Your task to perform on an android device: open app "Google Chat" Image 0: 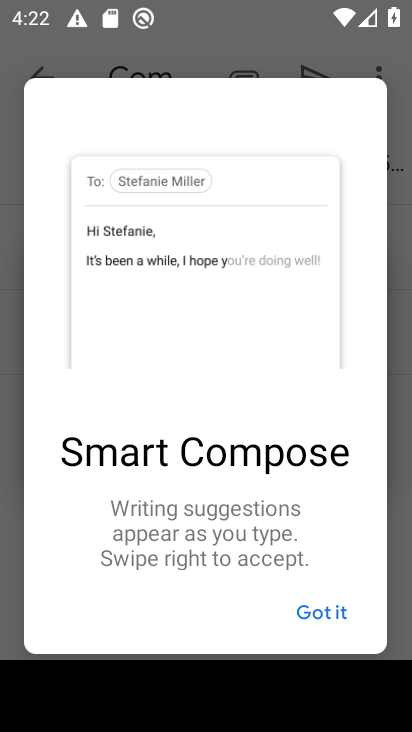
Step 0: press home button
Your task to perform on an android device: open app "Google Chat" Image 1: 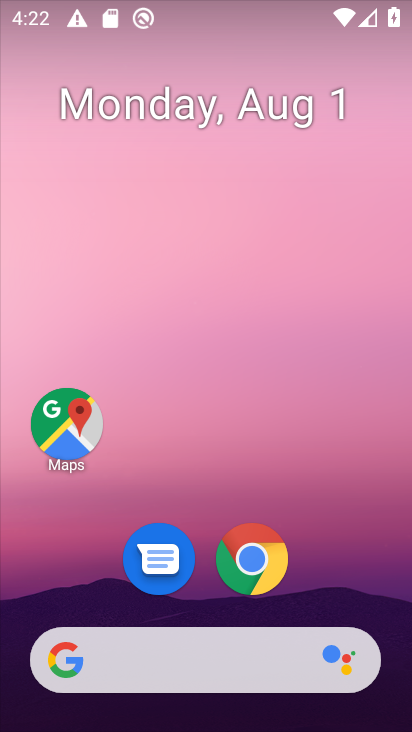
Step 1: drag from (216, 592) to (185, 728)
Your task to perform on an android device: open app "Google Chat" Image 2: 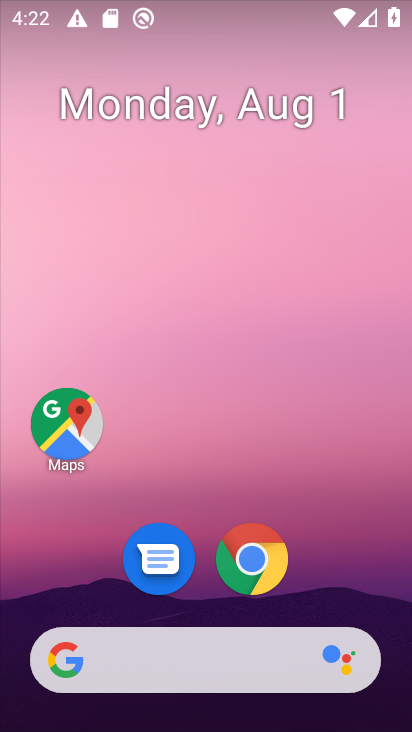
Step 2: drag from (231, 602) to (232, 56)
Your task to perform on an android device: open app "Google Chat" Image 3: 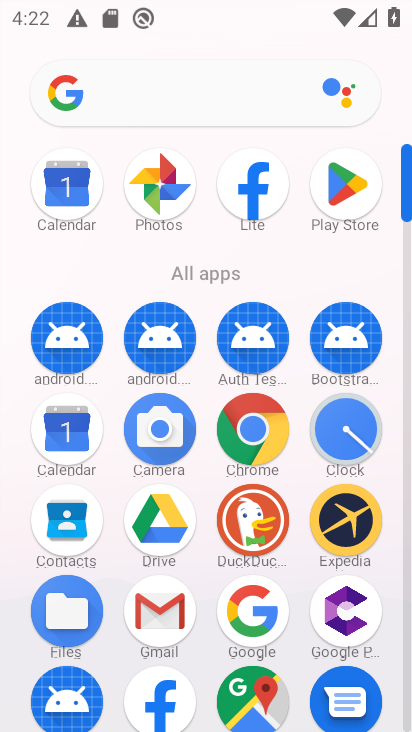
Step 3: click (349, 191)
Your task to perform on an android device: open app "Google Chat" Image 4: 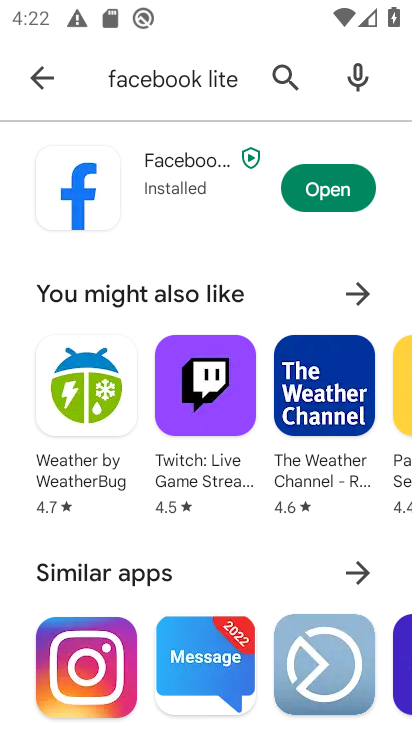
Step 4: click (162, 93)
Your task to perform on an android device: open app "Google Chat" Image 5: 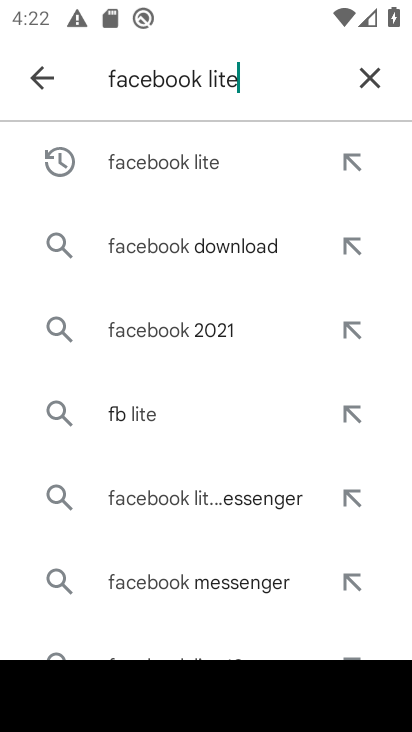
Step 5: click (361, 80)
Your task to perform on an android device: open app "Google Chat" Image 6: 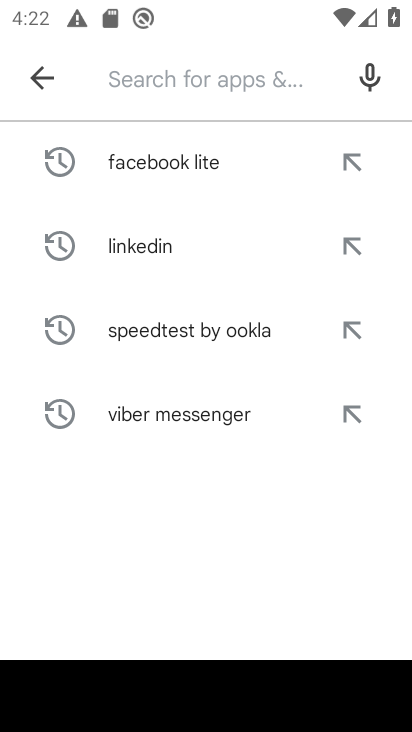
Step 6: type "google chat"
Your task to perform on an android device: open app "Google Chat" Image 7: 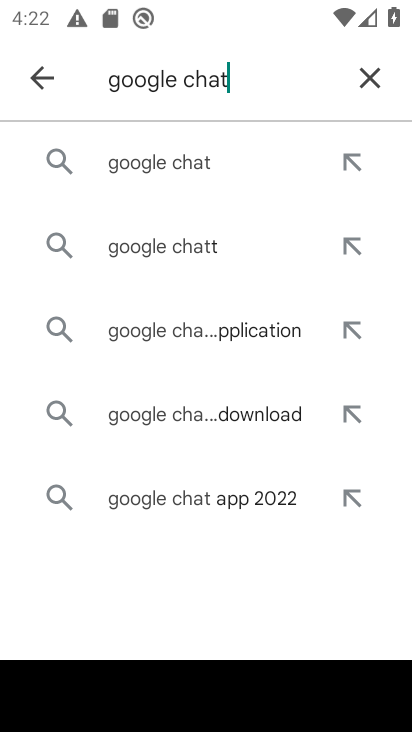
Step 7: click (155, 171)
Your task to perform on an android device: open app "Google Chat" Image 8: 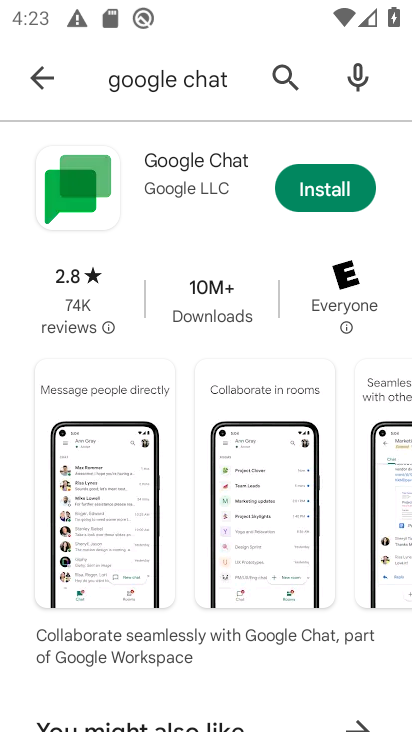
Step 8: task complete